Your task to perform on an android device: turn off data saver in the chrome app Image 0: 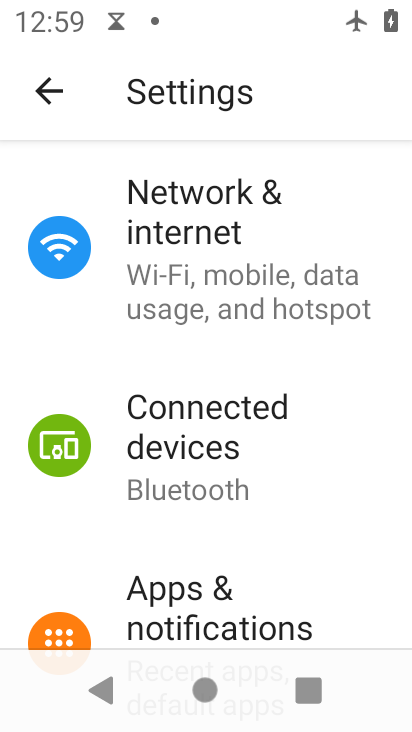
Step 0: press home button
Your task to perform on an android device: turn off data saver in the chrome app Image 1: 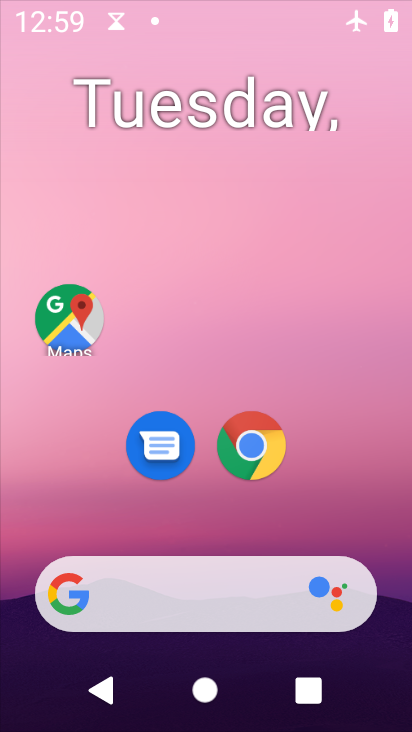
Step 1: drag from (300, 631) to (246, 117)
Your task to perform on an android device: turn off data saver in the chrome app Image 2: 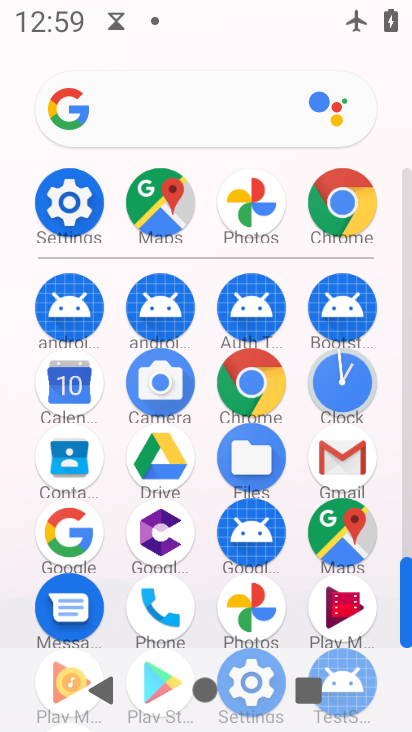
Step 2: click (252, 391)
Your task to perform on an android device: turn off data saver in the chrome app Image 3: 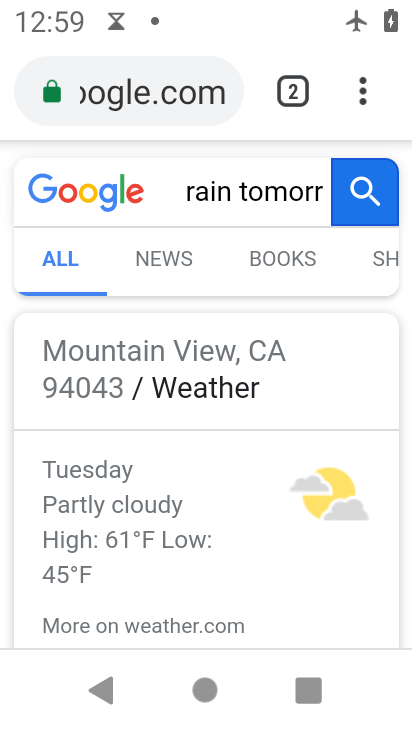
Step 3: drag from (364, 89) to (178, 489)
Your task to perform on an android device: turn off data saver in the chrome app Image 4: 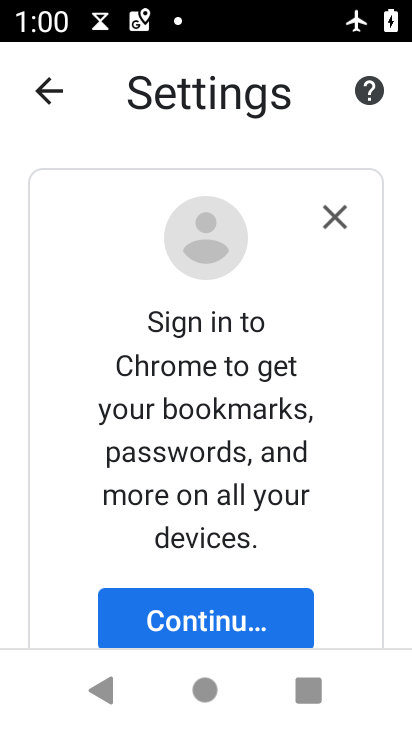
Step 4: drag from (286, 601) to (315, 252)
Your task to perform on an android device: turn off data saver in the chrome app Image 5: 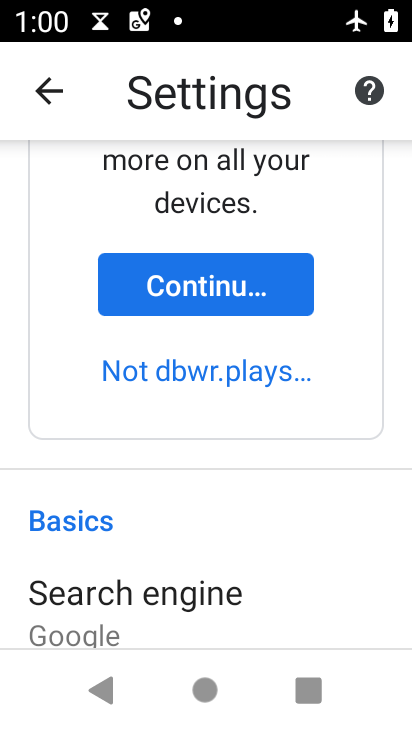
Step 5: drag from (332, 614) to (357, 201)
Your task to perform on an android device: turn off data saver in the chrome app Image 6: 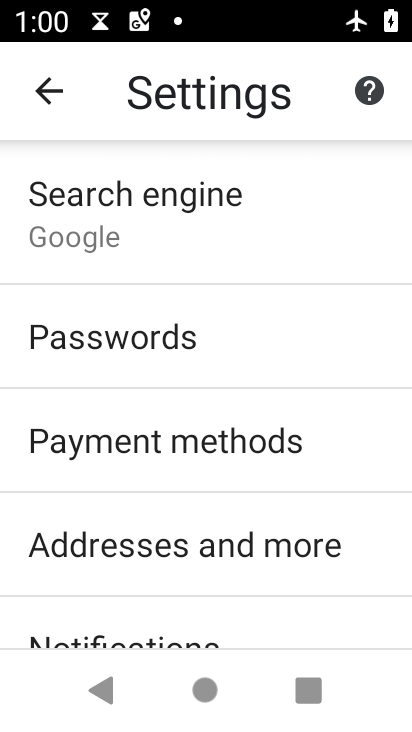
Step 6: drag from (291, 628) to (300, 158)
Your task to perform on an android device: turn off data saver in the chrome app Image 7: 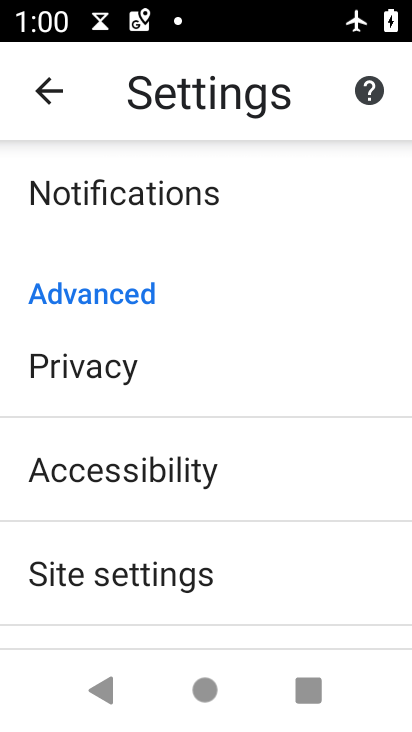
Step 7: drag from (288, 635) to (277, 461)
Your task to perform on an android device: turn off data saver in the chrome app Image 8: 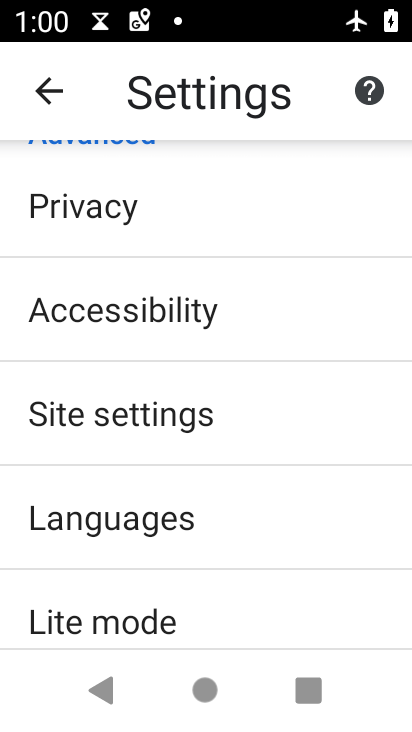
Step 8: click (183, 632)
Your task to perform on an android device: turn off data saver in the chrome app Image 9: 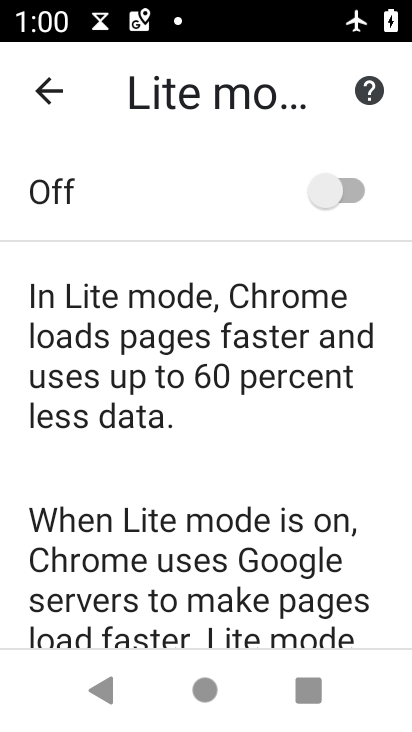
Step 9: task complete